Your task to perform on an android device: Empty the shopping cart on costco. Search for dell xps on costco, select the first entry, add it to the cart, then select checkout. Image 0: 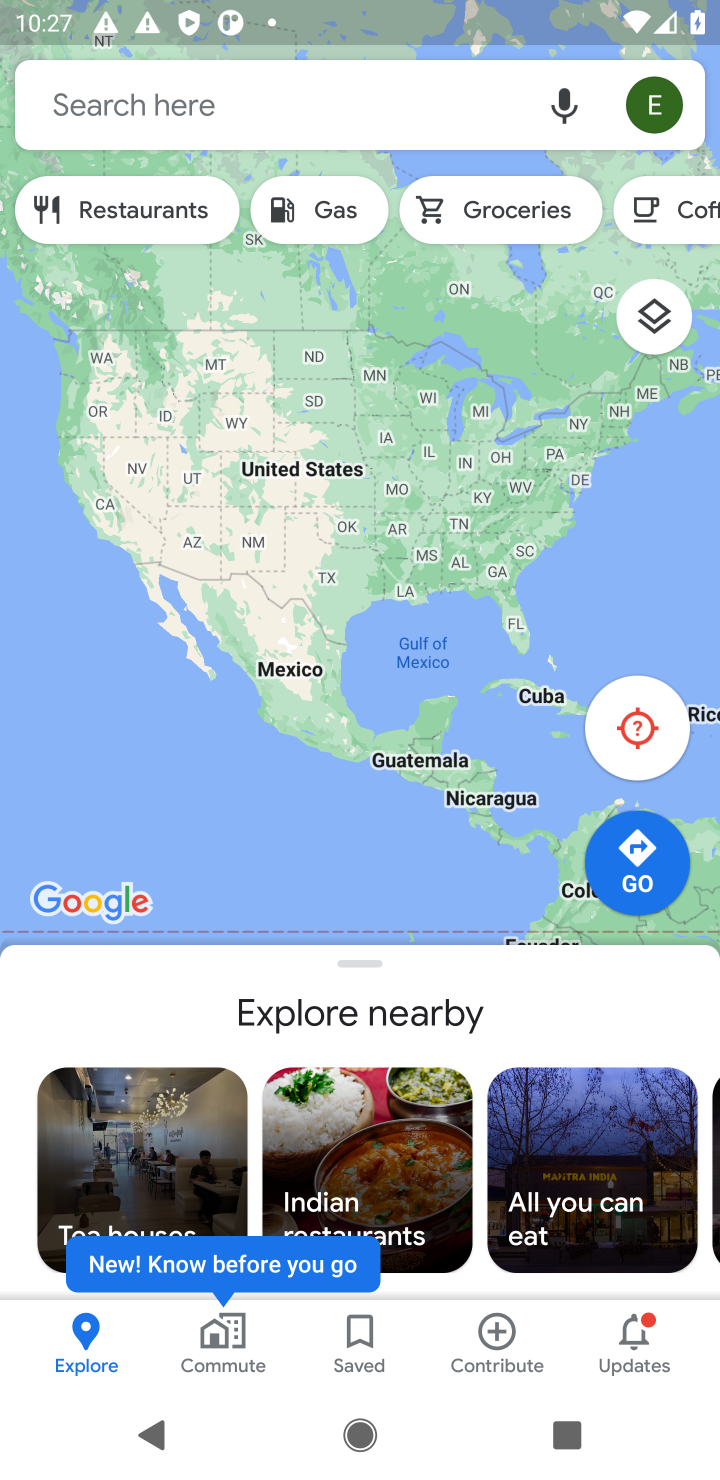
Step 0: click (285, 91)
Your task to perform on an android device: Empty the shopping cart on costco. Search for dell xps on costco, select the first entry, add it to the cart, then select checkout. Image 1: 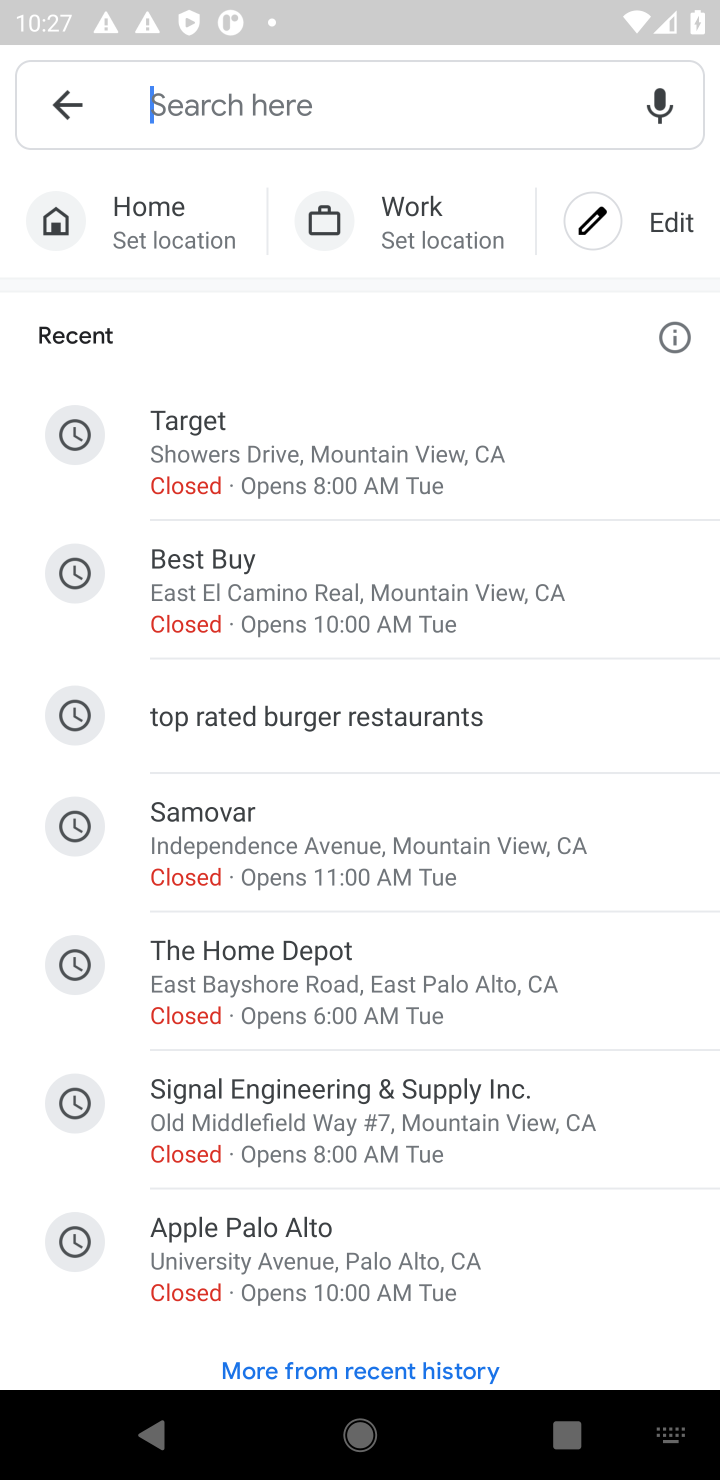
Step 1: press home button
Your task to perform on an android device: Empty the shopping cart on costco. Search for dell xps on costco, select the first entry, add it to the cart, then select checkout. Image 2: 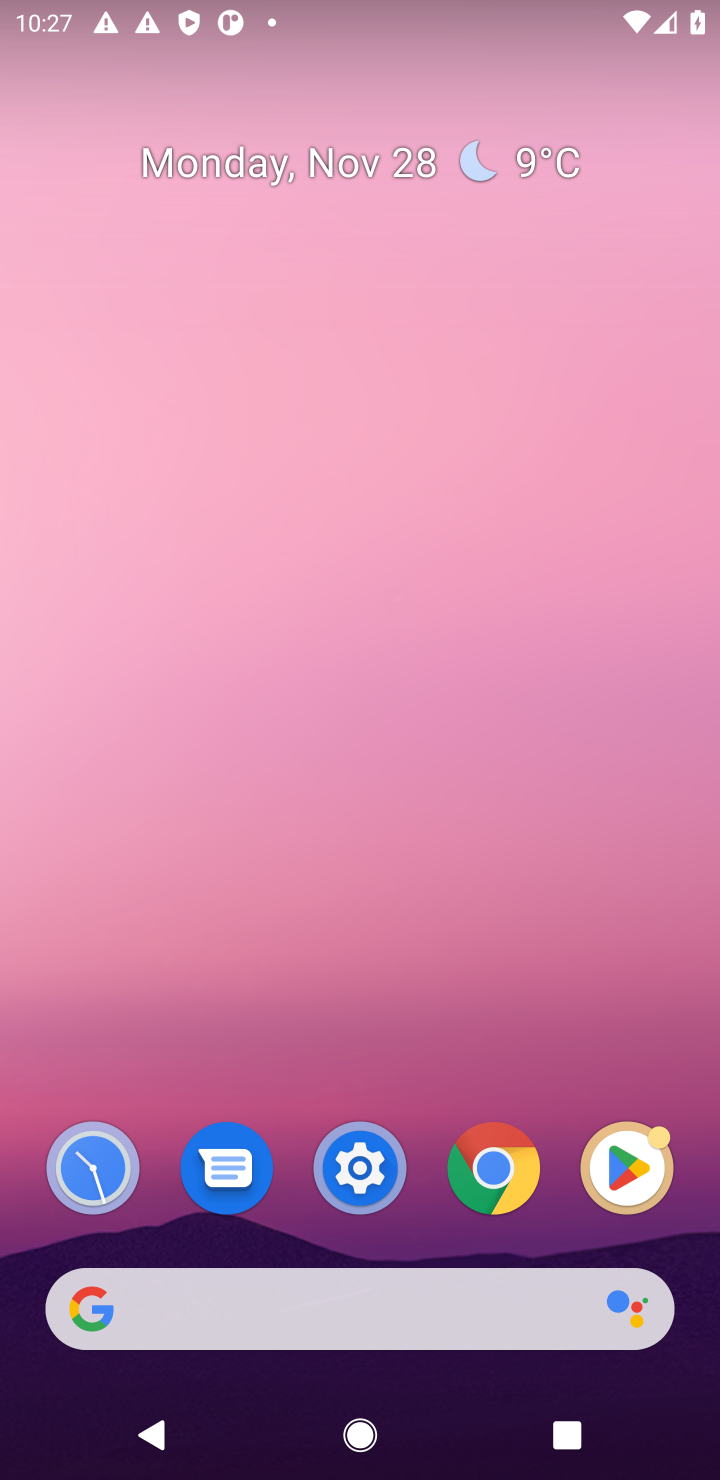
Step 2: click (386, 1326)
Your task to perform on an android device: Empty the shopping cart on costco. Search for dell xps on costco, select the first entry, add it to the cart, then select checkout. Image 3: 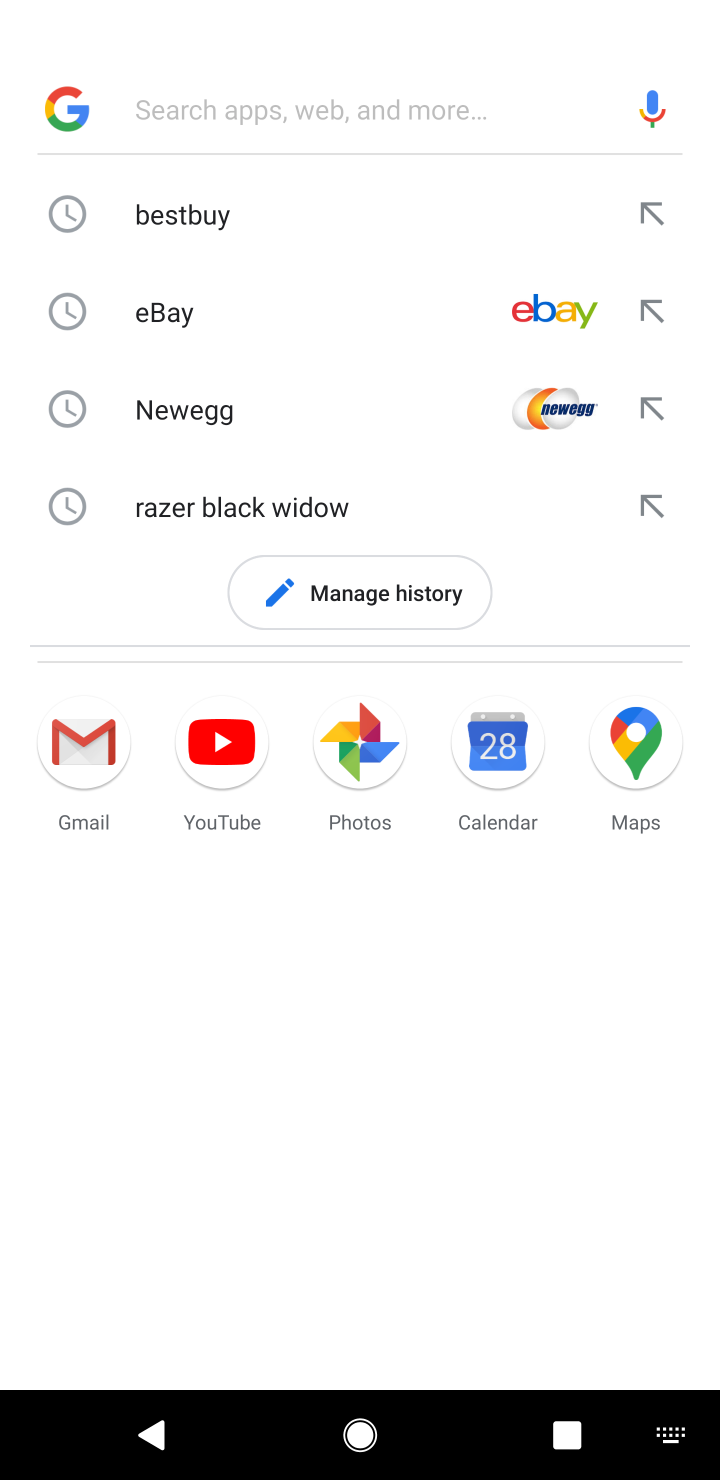
Step 3: type "costco"
Your task to perform on an android device: Empty the shopping cart on costco. Search for dell xps on costco, select the first entry, add it to the cart, then select checkout. Image 4: 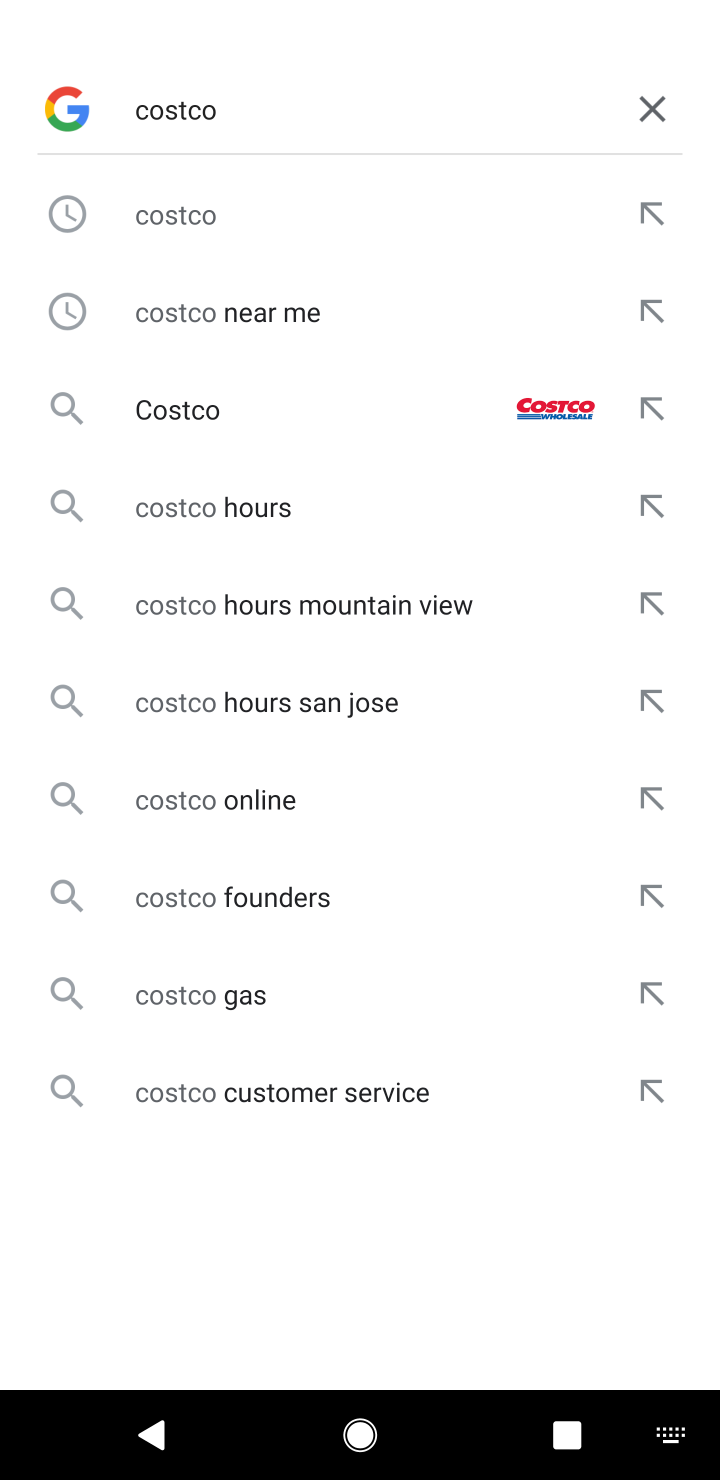
Step 4: click (244, 438)
Your task to perform on an android device: Empty the shopping cart on costco. Search for dell xps on costco, select the first entry, add it to the cart, then select checkout. Image 5: 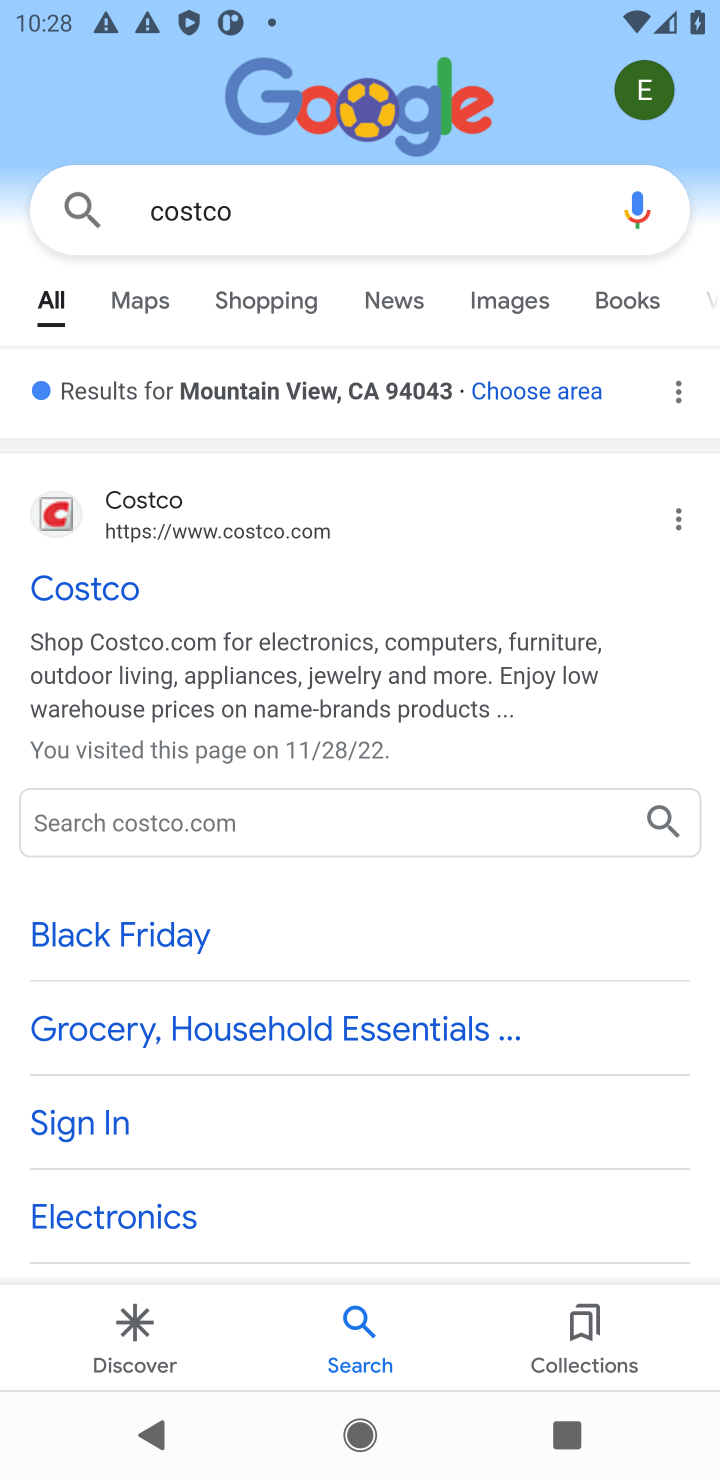
Step 5: click (130, 540)
Your task to perform on an android device: Empty the shopping cart on costco. Search for dell xps on costco, select the first entry, add it to the cart, then select checkout. Image 6: 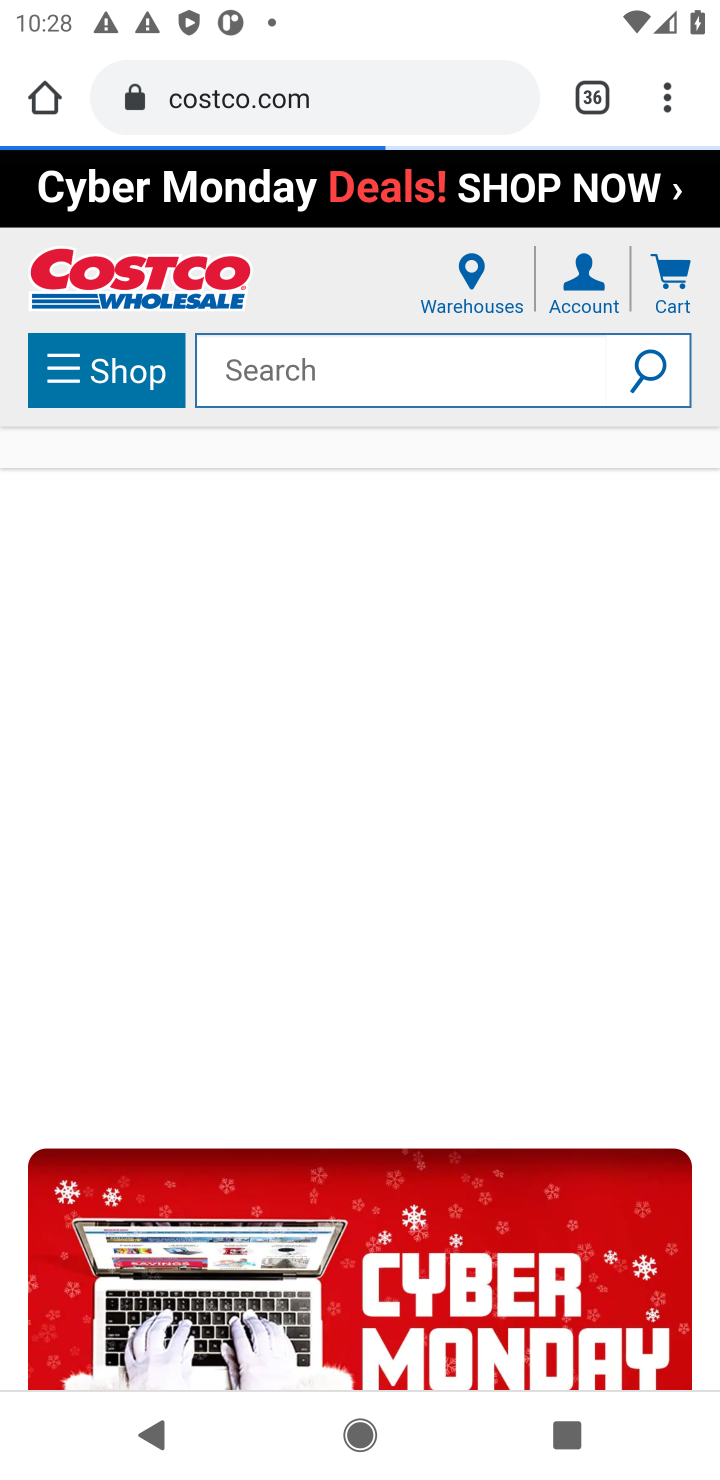
Step 6: click (339, 392)
Your task to perform on an android device: Empty the shopping cart on costco. Search for dell xps on costco, select the first entry, add it to the cart, then select checkout. Image 7: 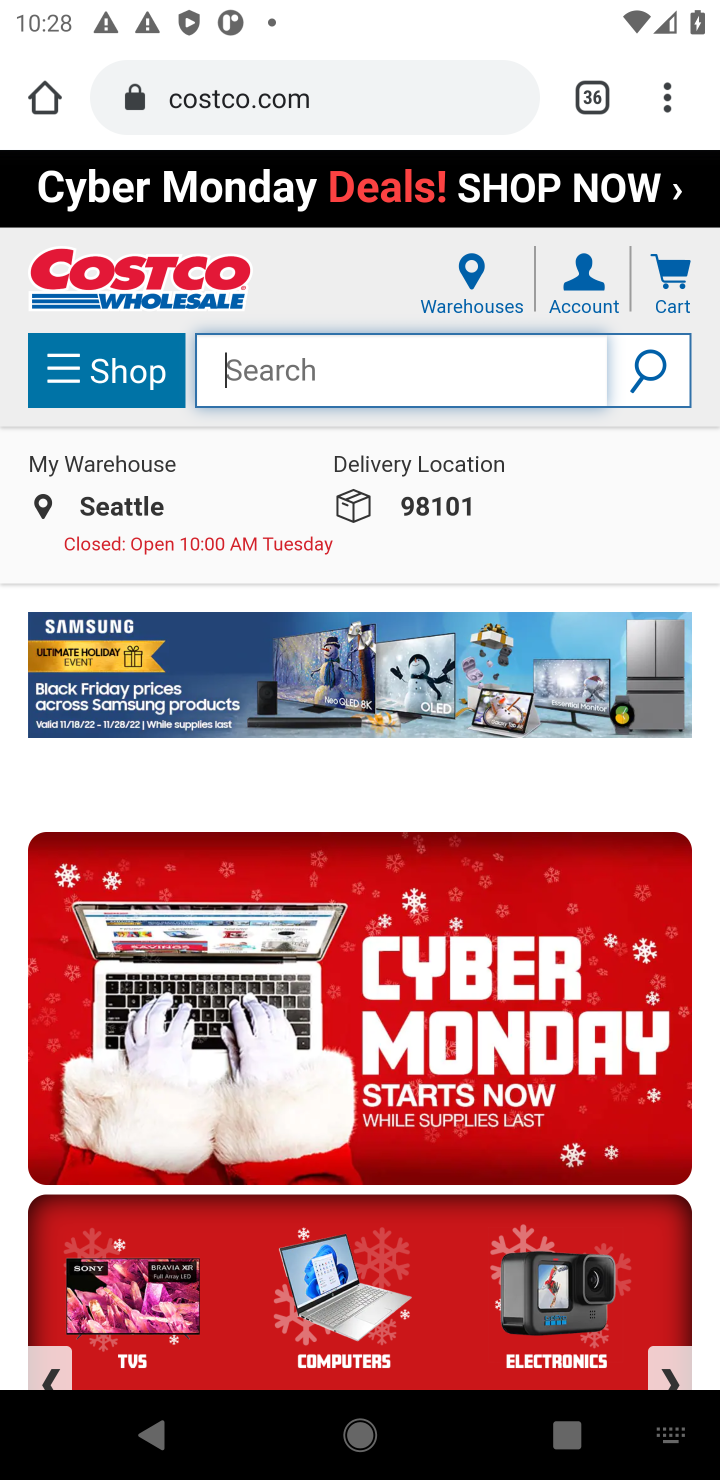
Step 7: type "dell xps"
Your task to perform on an android device: Empty the shopping cart on costco. Search for dell xps on costco, select the first entry, add it to the cart, then select checkout. Image 8: 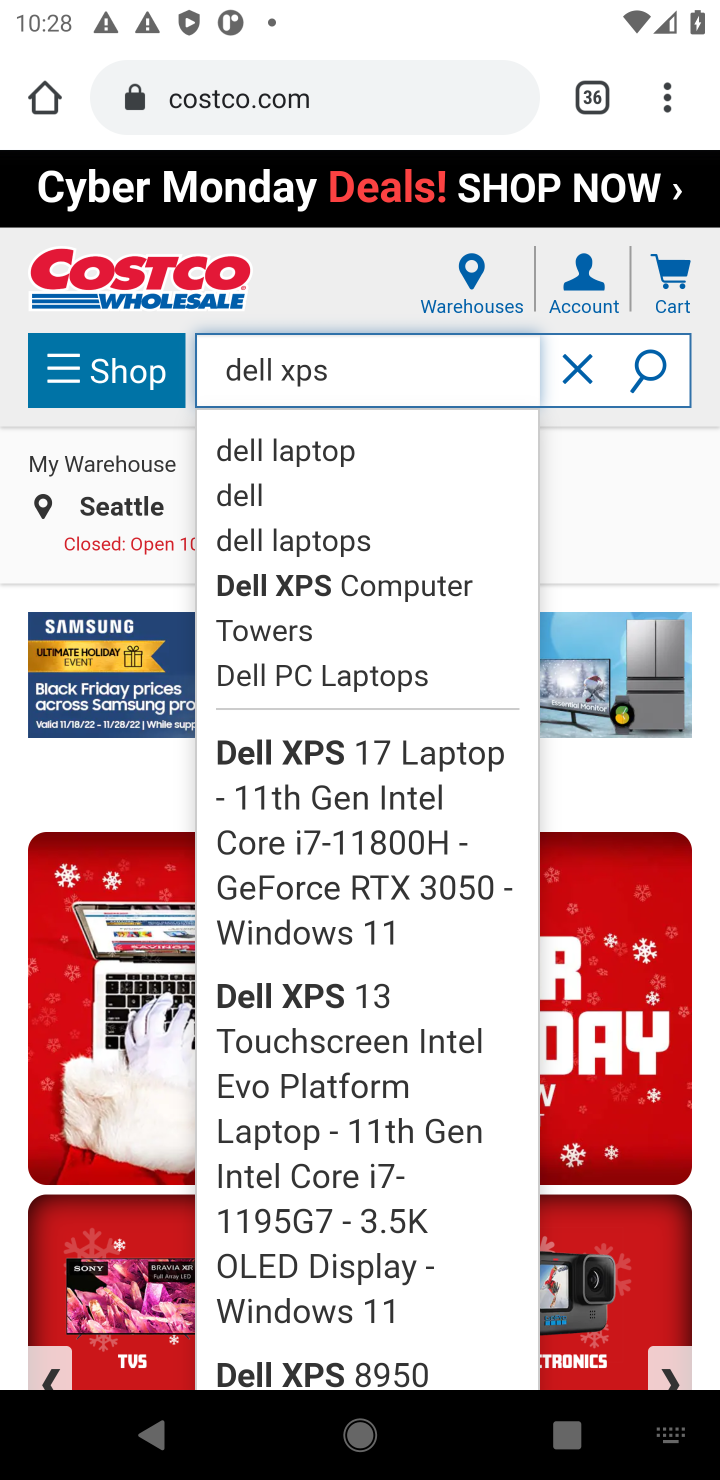
Step 8: click (311, 467)
Your task to perform on an android device: Empty the shopping cart on costco. Search for dell xps on costco, select the first entry, add it to the cart, then select checkout. Image 9: 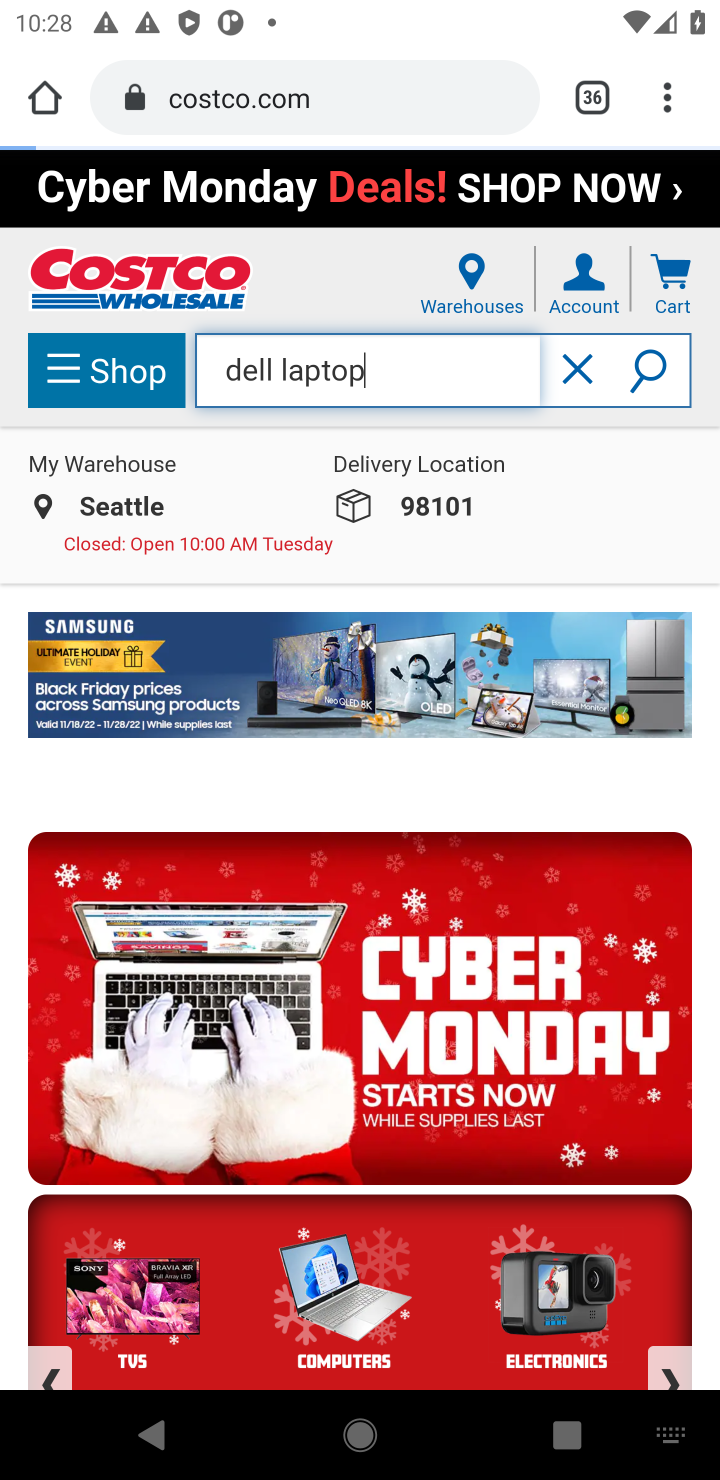
Step 9: task complete